Your task to perform on an android device: check data usage Image 0: 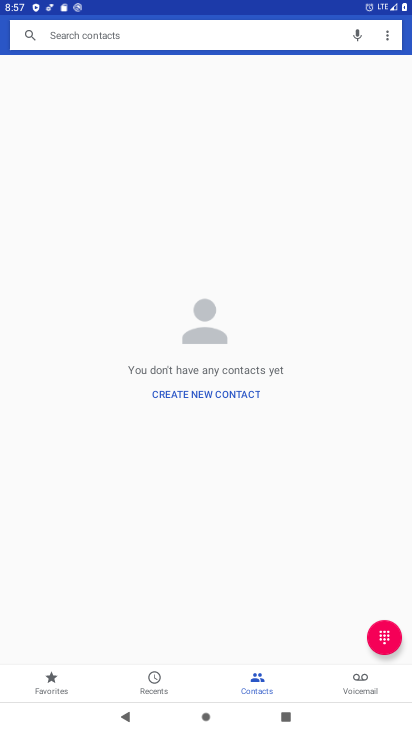
Step 0: press home button
Your task to perform on an android device: check data usage Image 1: 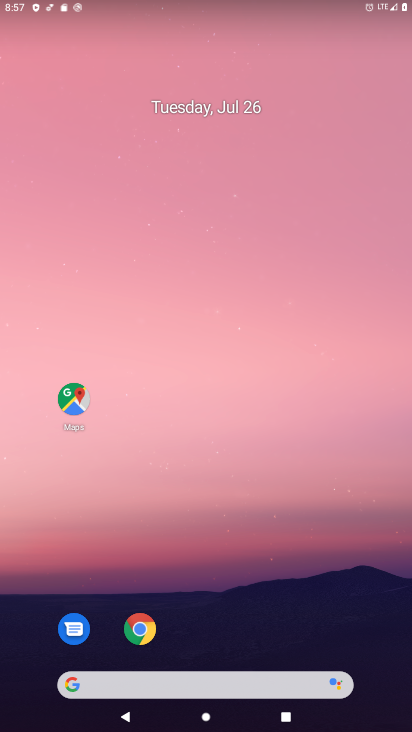
Step 1: drag from (225, 660) to (188, 297)
Your task to perform on an android device: check data usage Image 2: 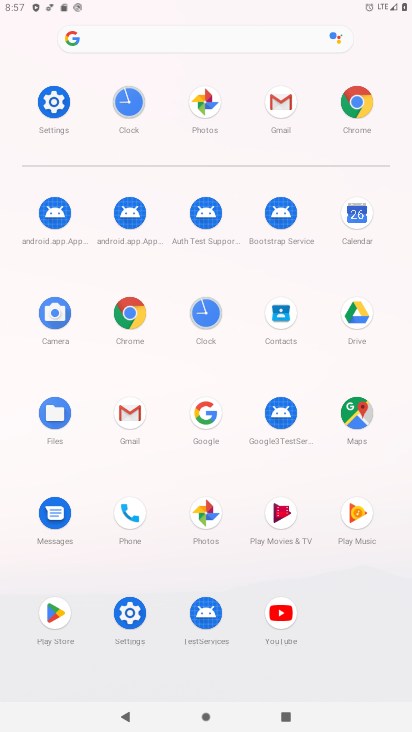
Step 2: click (62, 115)
Your task to perform on an android device: check data usage Image 3: 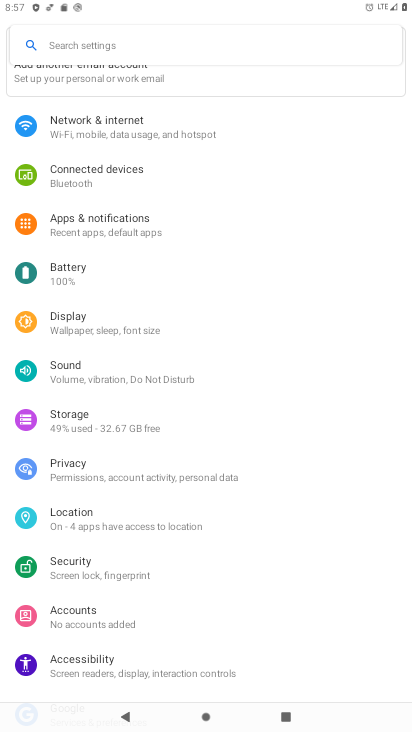
Step 3: click (121, 116)
Your task to perform on an android device: check data usage Image 4: 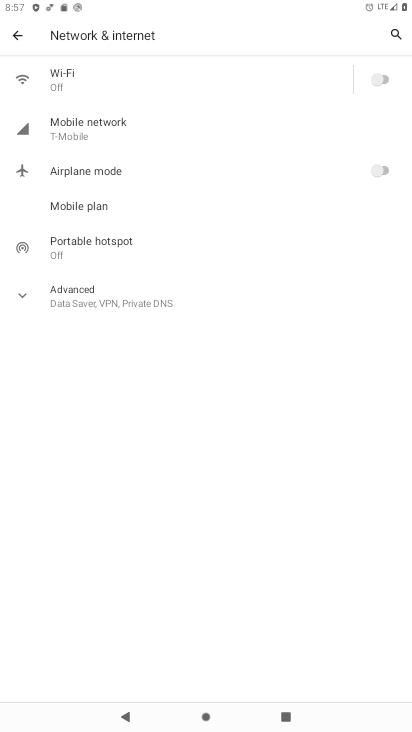
Step 4: click (121, 116)
Your task to perform on an android device: check data usage Image 5: 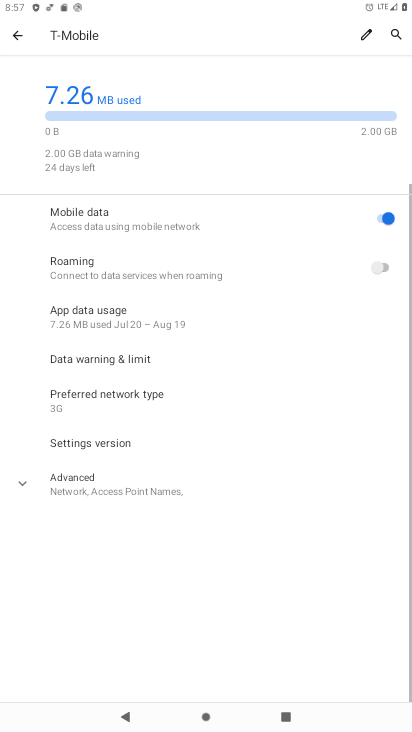
Step 5: task complete